Your task to perform on an android device: toggle translation in the chrome app Image 0: 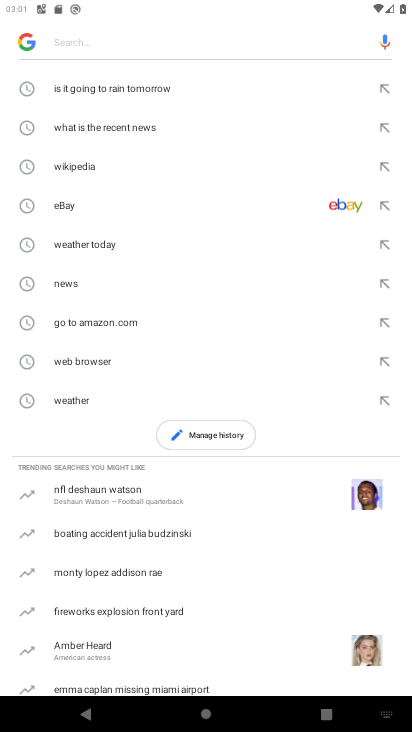
Step 0: press back button
Your task to perform on an android device: toggle translation in the chrome app Image 1: 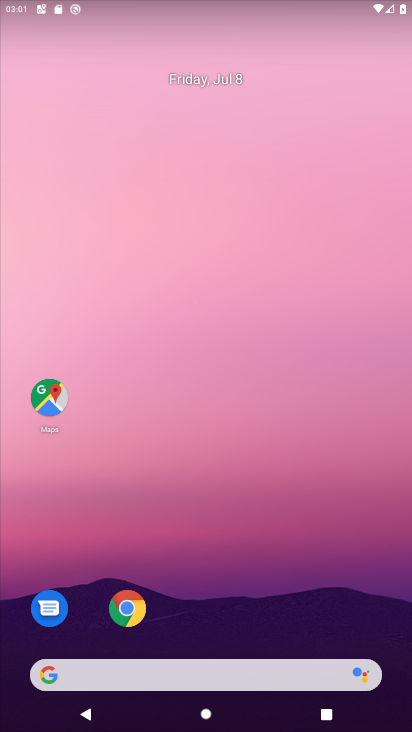
Step 1: drag from (205, 615) to (211, 200)
Your task to perform on an android device: toggle translation in the chrome app Image 2: 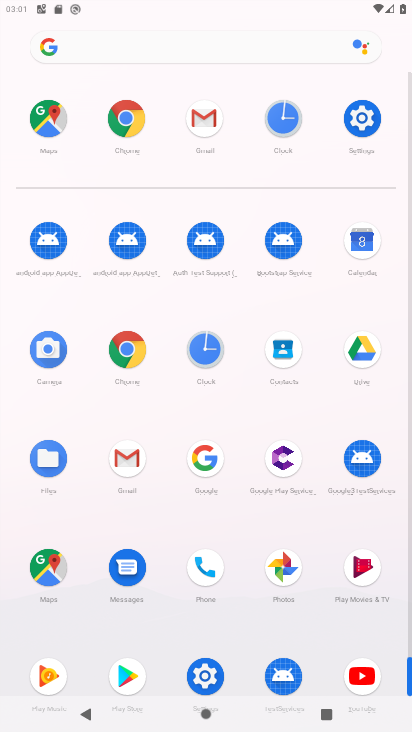
Step 2: click (123, 117)
Your task to perform on an android device: toggle translation in the chrome app Image 3: 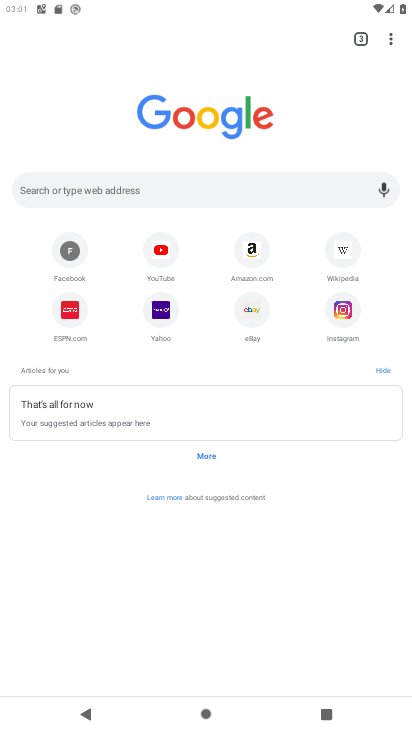
Step 3: click (393, 34)
Your task to perform on an android device: toggle translation in the chrome app Image 4: 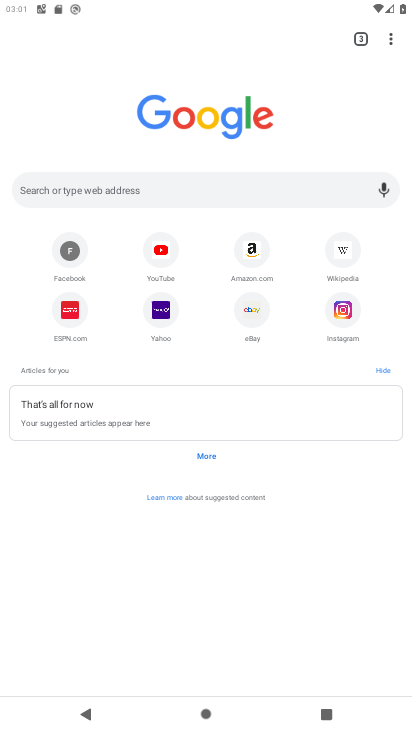
Step 4: click (398, 35)
Your task to perform on an android device: toggle translation in the chrome app Image 5: 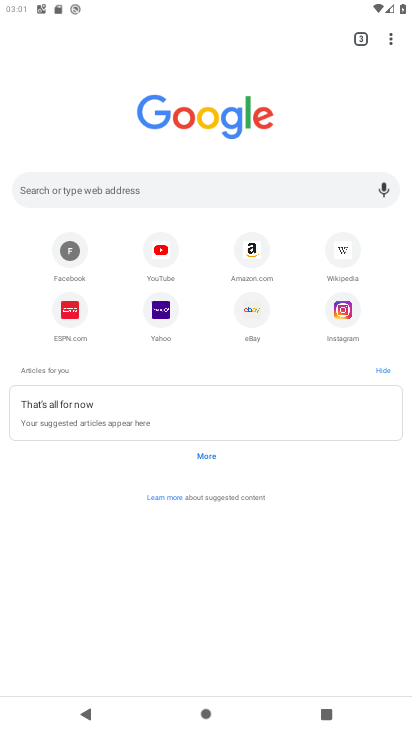
Step 5: click (393, 37)
Your task to perform on an android device: toggle translation in the chrome app Image 6: 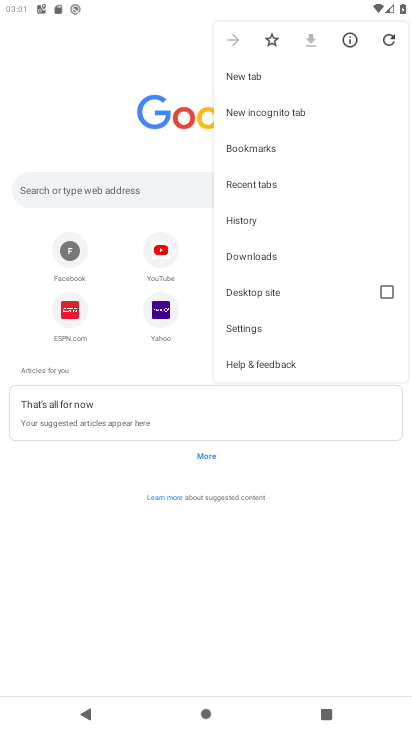
Step 6: click (262, 319)
Your task to perform on an android device: toggle translation in the chrome app Image 7: 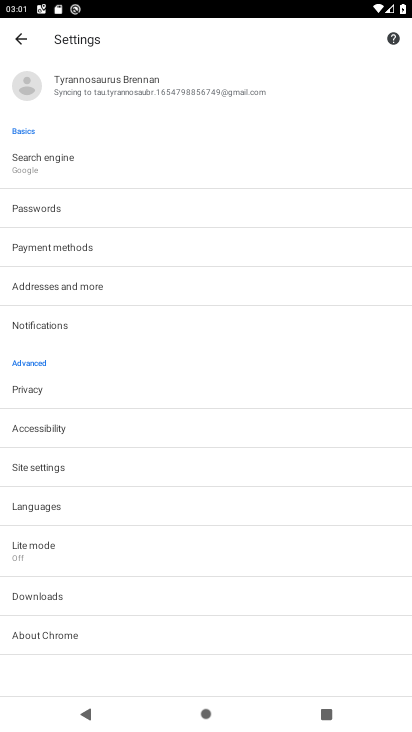
Step 7: drag from (83, 591) to (153, 279)
Your task to perform on an android device: toggle translation in the chrome app Image 8: 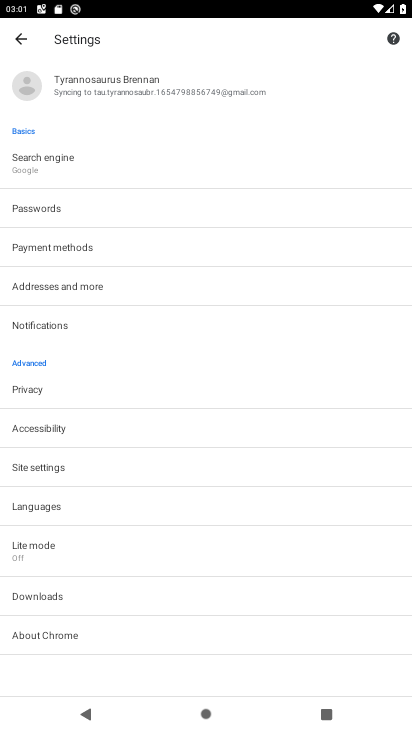
Step 8: drag from (73, 645) to (126, 252)
Your task to perform on an android device: toggle translation in the chrome app Image 9: 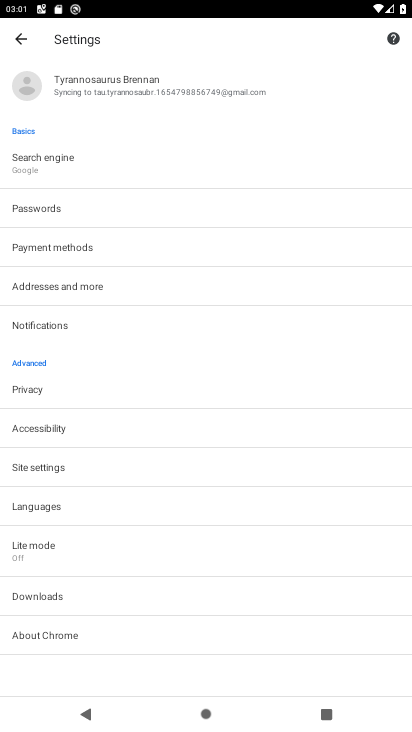
Step 9: drag from (92, 540) to (162, 244)
Your task to perform on an android device: toggle translation in the chrome app Image 10: 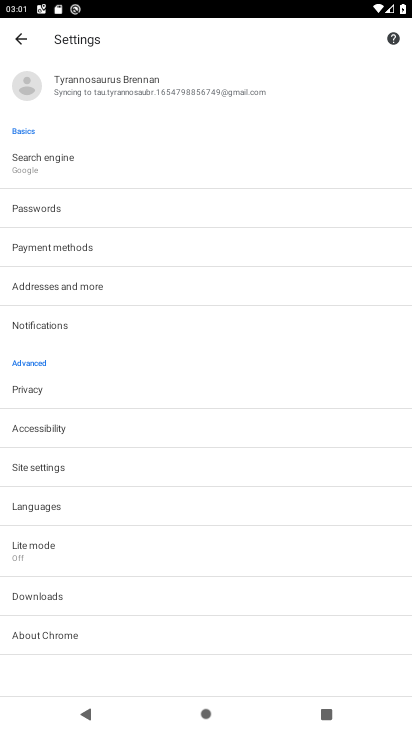
Step 10: drag from (102, 484) to (119, 303)
Your task to perform on an android device: toggle translation in the chrome app Image 11: 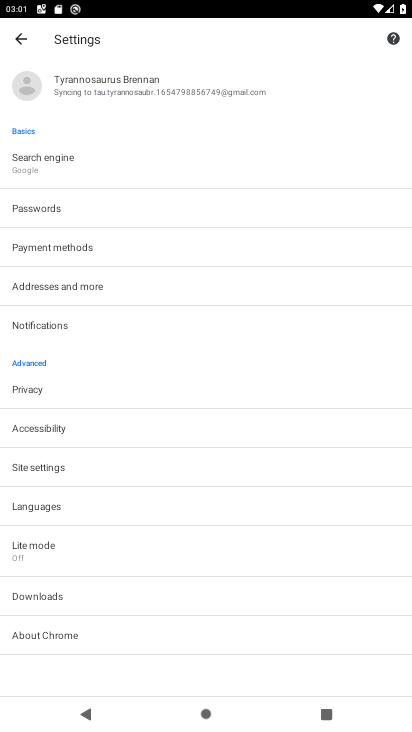
Step 11: drag from (59, 582) to (101, 186)
Your task to perform on an android device: toggle translation in the chrome app Image 12: 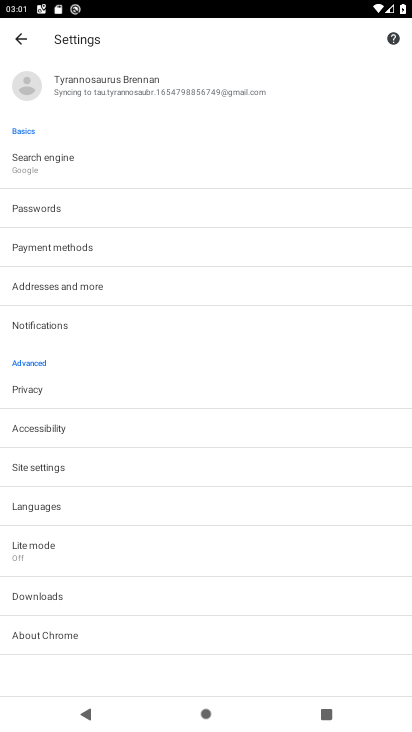
Step 12: drag from (170, 573) to (183, 232)
Your task to perform on an android device: toggle translation in the chrome app Image 13: 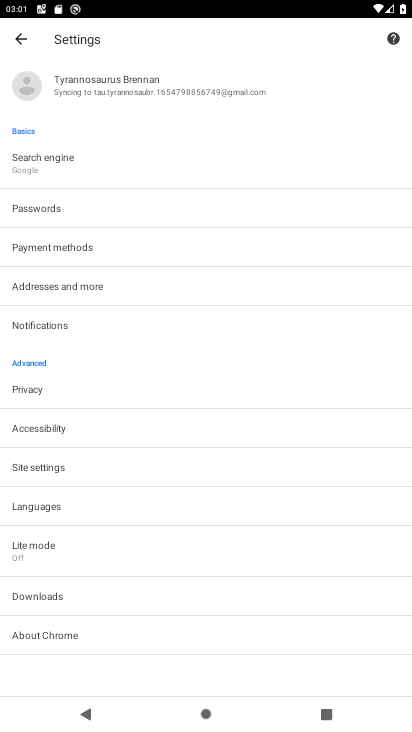
Step 13: drag from (182, 403) to (202, 166)
Your task to perform on an android device: toggle translation in the chrome app Image 14: 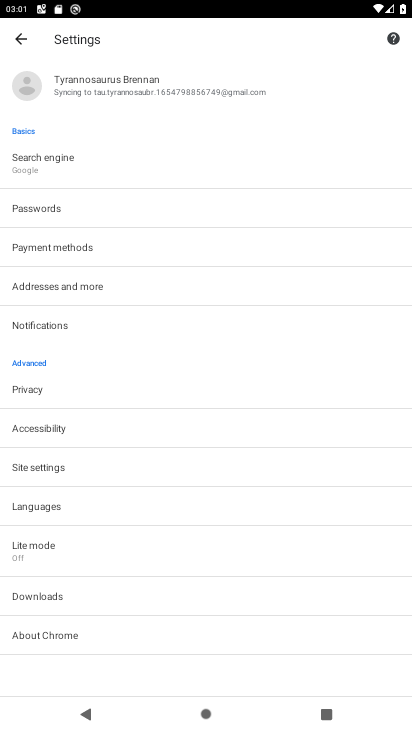
Step 14: drag from (212, 447) to (206, 267)
Your task to perform on an android device: toggle translation in the chrome app Image 15: 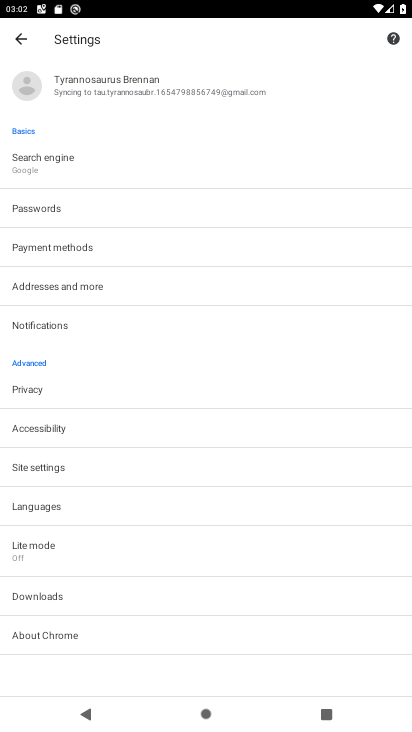
Step 15: drag from (94, 597) to (143, 250)
Your task to perform on an android device: toggle translation in the chrome app Image 16: 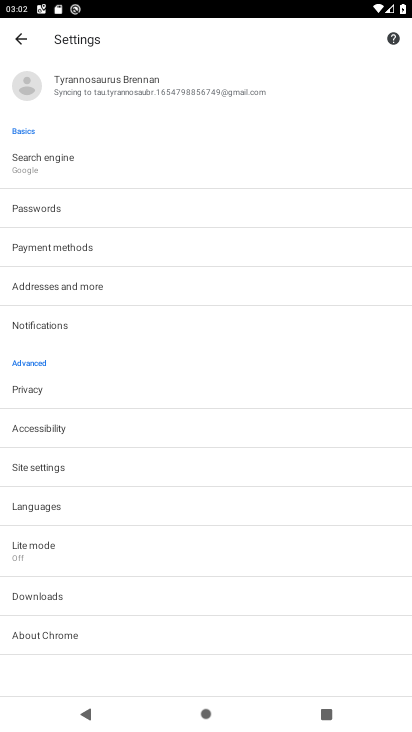
Step 16: click (76, 507)
Your task to perform on an android device: toggle translation in the chrome app Image 17: 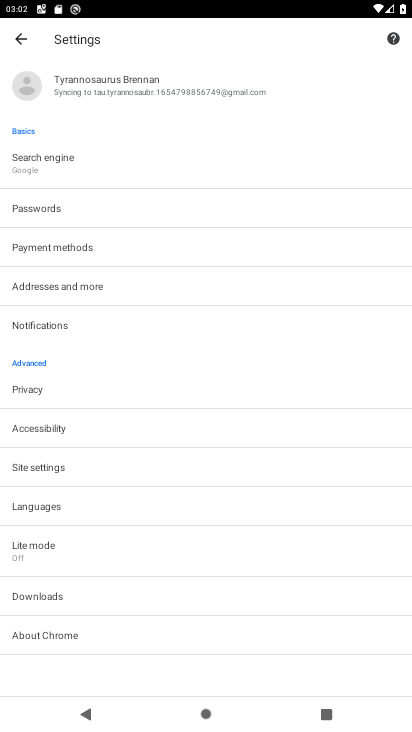
Step 17: click (76, 507)
Your task to perform on an android device: toggle translation in the chrome app Image 18: 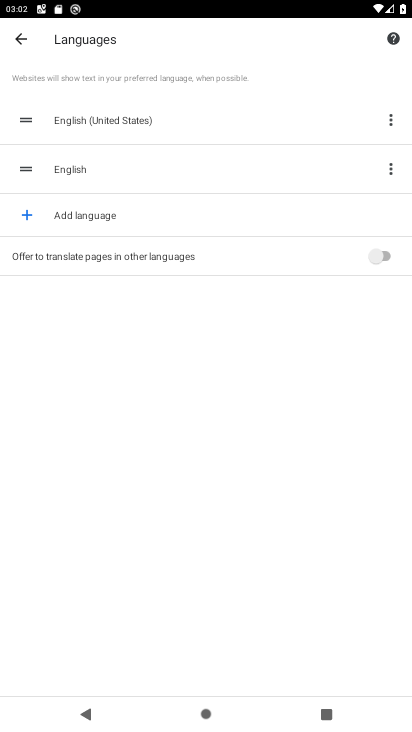
Step 18: click (385, 252)
Your task to perform on an android device: toggle translation in the chrome app Image 19: 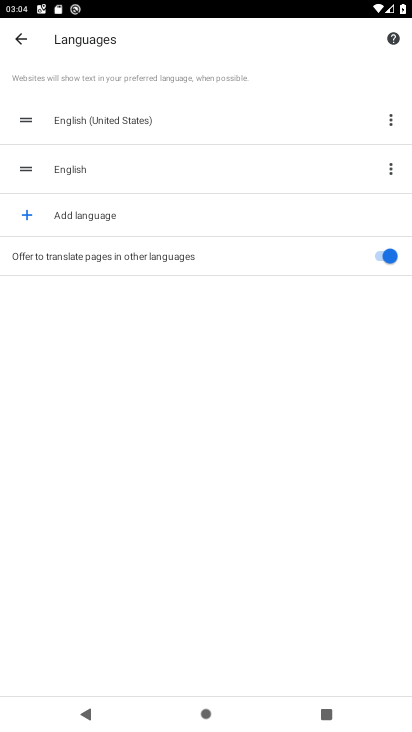
Step 19: task complete